Your task to perform on an android device: Open calendar and show me the third week of next month Image 0: 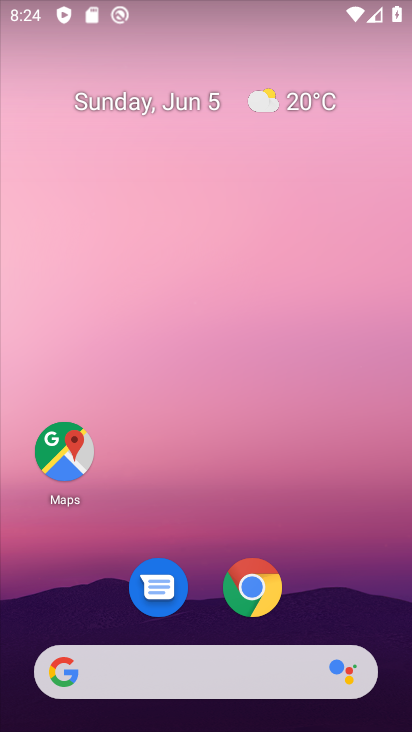
Step 0: drag from (93, 610) to (159, 235)
Your task to perform on an android device: Open calendar and show me the third week of next month Image 1: 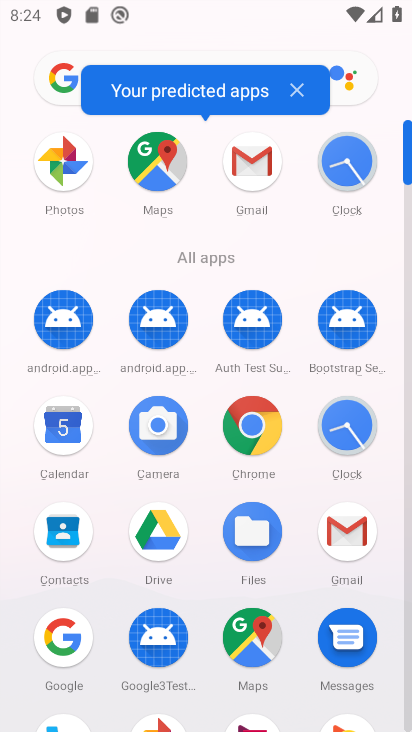
Step 1: click (76, 431)
Your task to perform on an android device: Open calendar and show me the third week of next month Image 2: 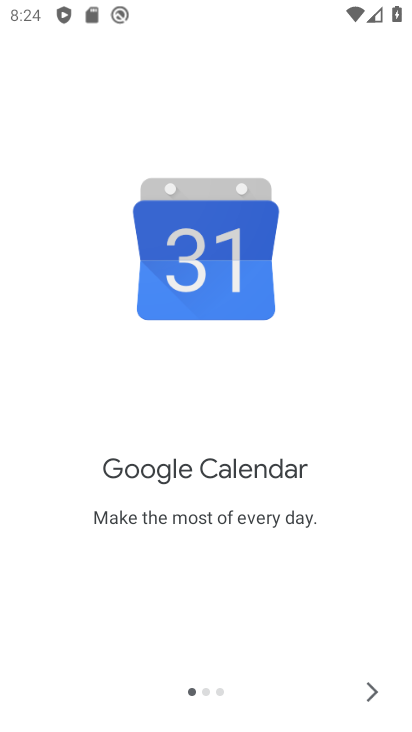
Step 2: click (365, 702)
Your task to perform on an android device: Open calendar and show me the third week of next month Image 3: 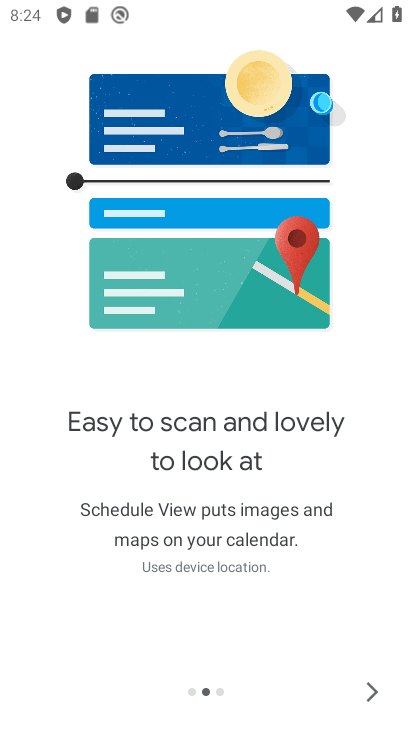
Step 3: click (381, 716)
Your task to perform on an android device: Open calendar and show me the third week of next month Image 4: 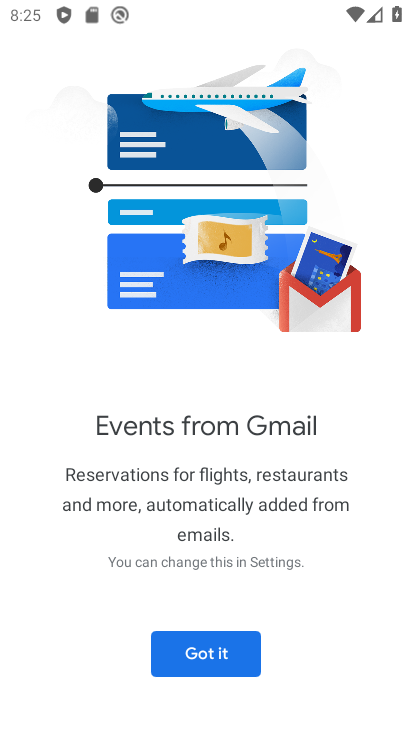
Step 4: click (235, 665)
Your task to perform on an android device: Open calendar and show me the third week of next month Image 5: 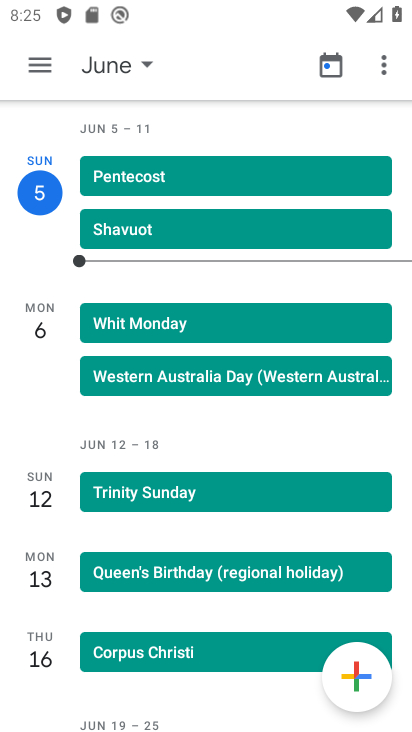
Step 5: click (108, 63)
Your task to perform on an android device: Open calendar and show me the third week of next month Image 6: 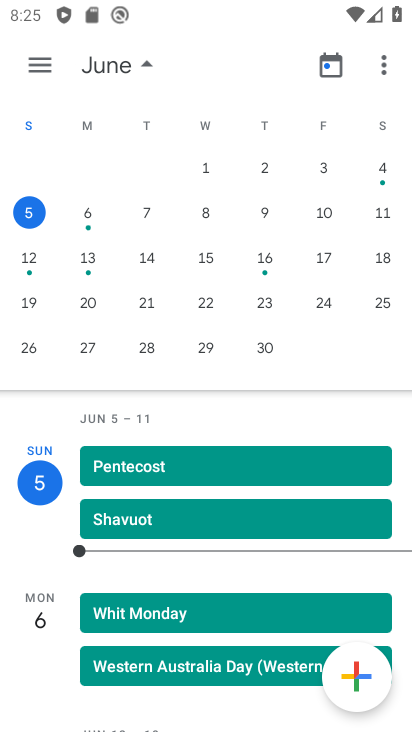
Step 6: drag from (373, 344) to (14, 276)
Your task to perform on an android device: Open calendar and show me the third week of next month Image 7: 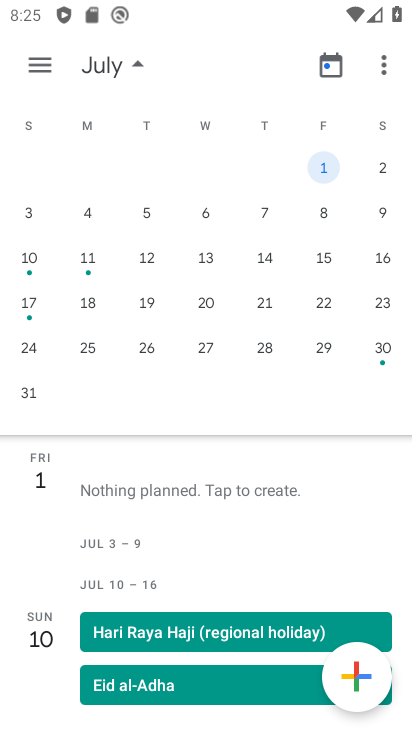
Step 7: click (27, 312)
Your task to perform on an android device: Open calendar and show me the third week of next month Image 8: 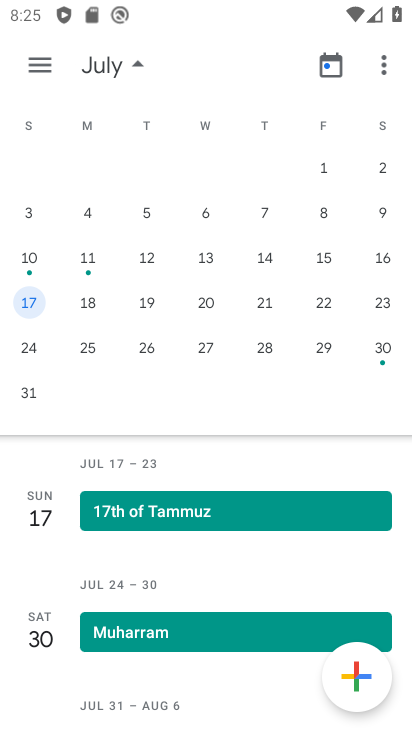
Step 8: click (45, 64)
Your task to perform on an android device: Open calendar and show me the third week of next month Image 9: 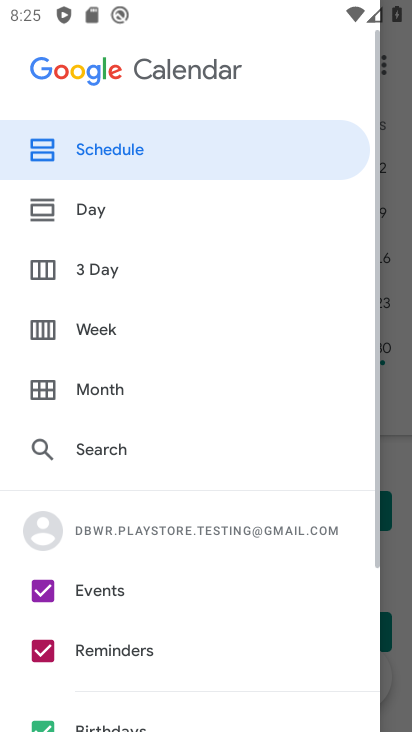
Step 9: click (121, 330)
Your task to perform on an android device: Open calendar and show me the third week of next month Image 10: 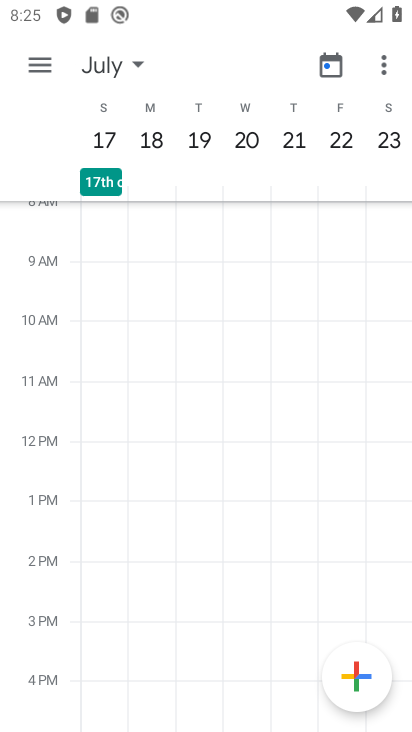
Step 10: task complete